Your task to perform on an android device: Open calendar and show me the first week of next month Image 0: 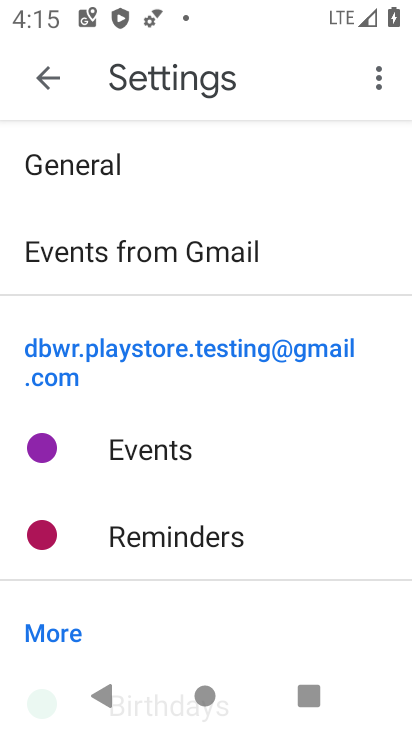
Step 0: press home button
Your task to perform on an android device: Open calendar and show me the first week of next month Image 1: 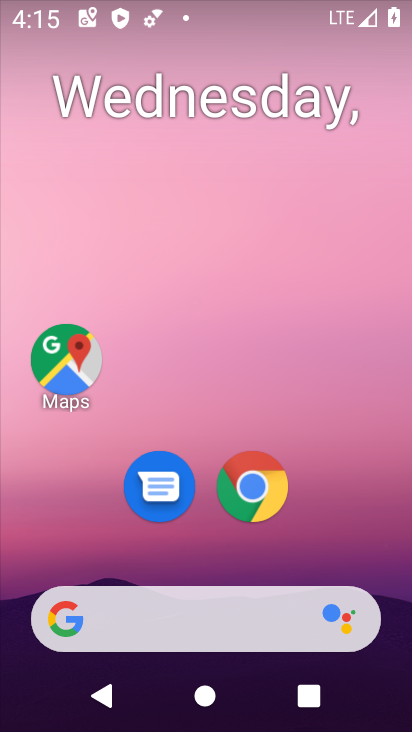
Step 1: drag from (275, 587) to (334, 181)
Your task to perform on an android device: Open calendar and show me the first week of next month Image 2: 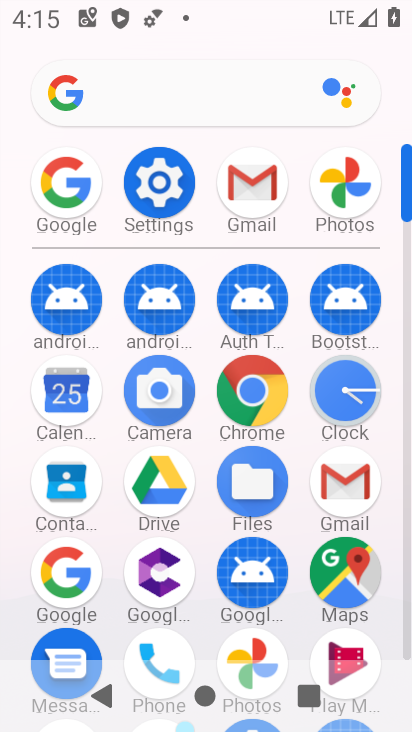
Step 2: click (66, 396)
Your task to perform on an android device: Open calendar and show me the first week of next month Image 3: 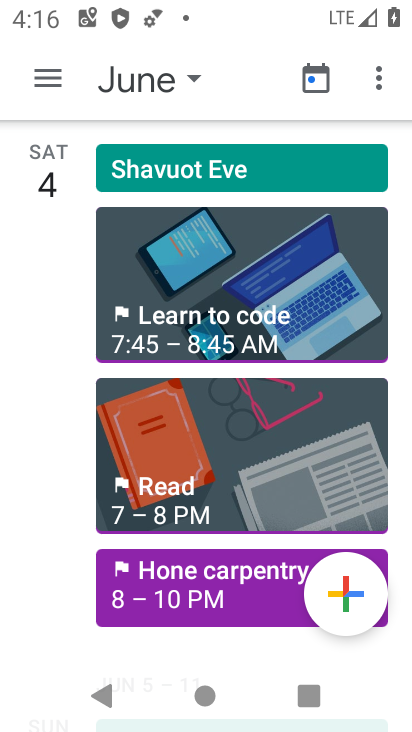
Step 3: click (161, 77)
Your task to perform on an android device: Open calendar and show me the first week of next month Image 4: 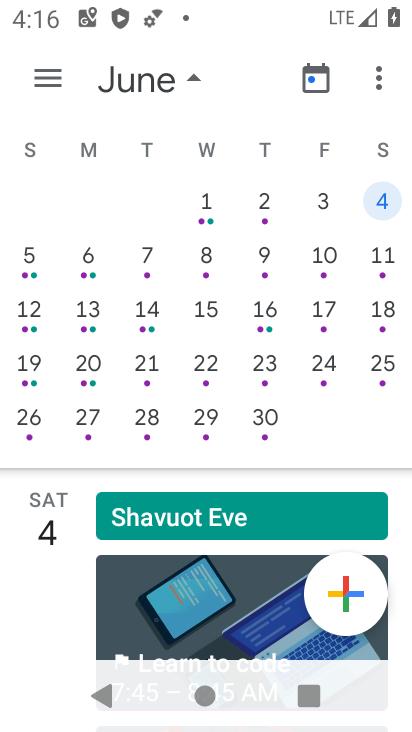
Step 4: click (196, 198)
Your task to perform on an android device: Open calendar and show me the first week of next month Image 5: 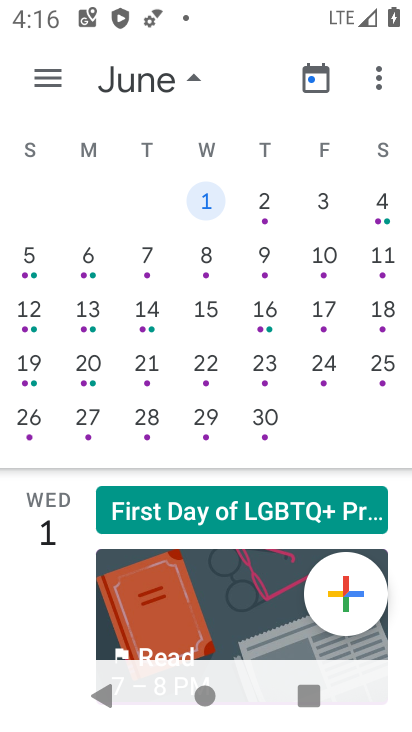
Step 5: task complete